Your task to perform on an android device: empty trash in the gmail app Image 0: 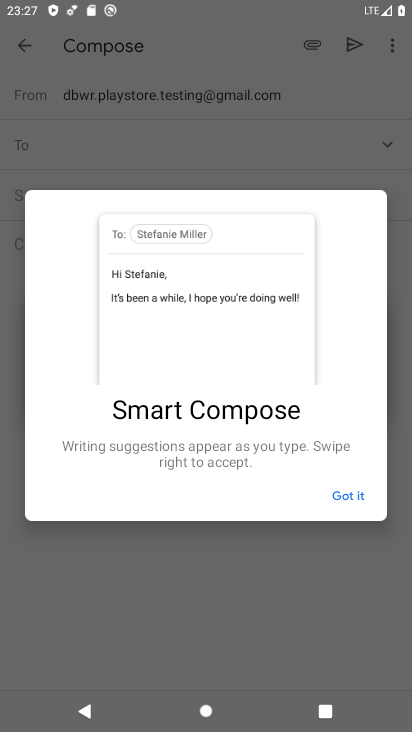
Step 0: drag from (208, 433) to (245, 199)
Your task to perform on an android device: empty trash in the gmail app Image 1: 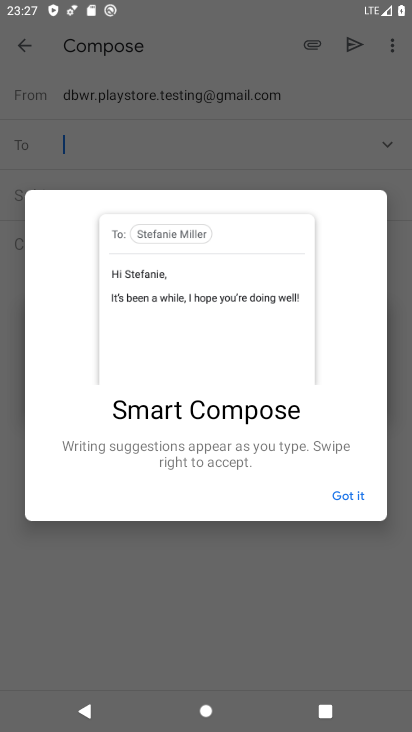
Step 1: press home button
Your task to perform on an android device: empty trash in the gmail app Image 2: 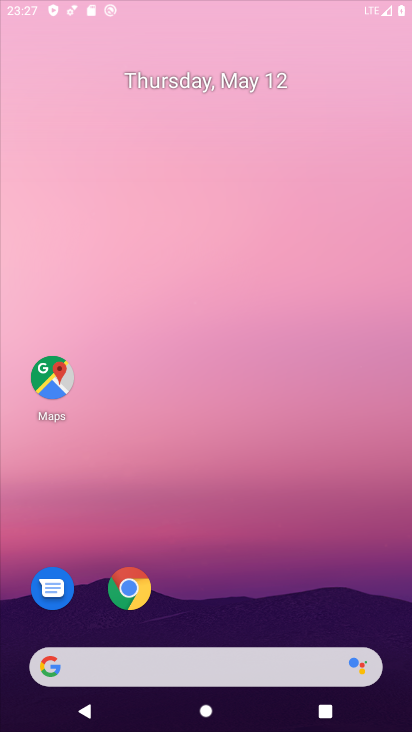
Step 2: drag from (249, 600) to (293, 136)
Your task to perform on an android device: empty trash in the gmail app Image 3: 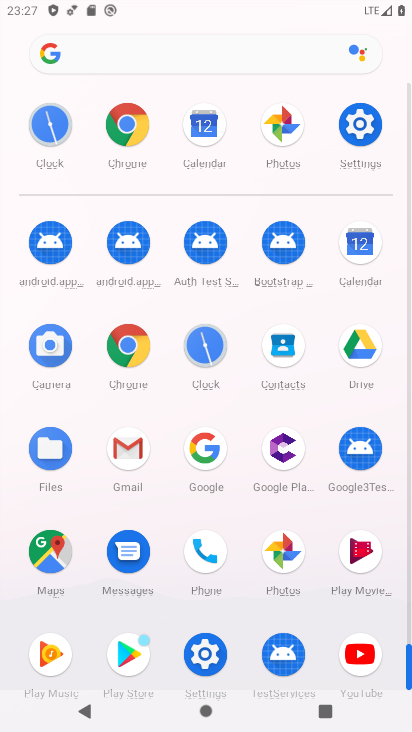
Step 3: click (364, 122)
Your task to perform on an android device: empty trash in the gmail app Image 4: 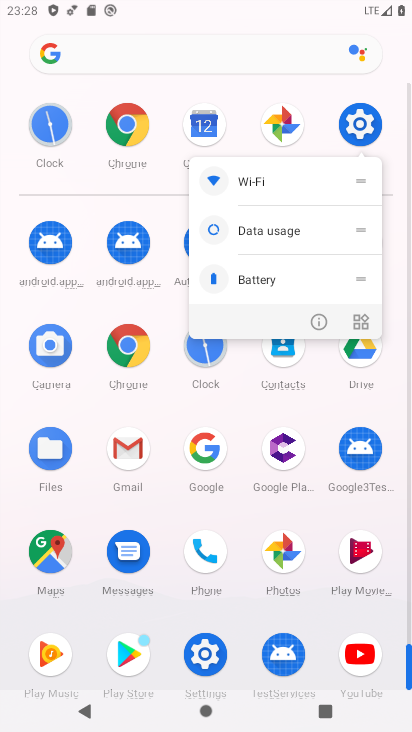
Step 4: click (108, 451)
Your task to perform on an android device: empty trash in the gmail app Image 5: 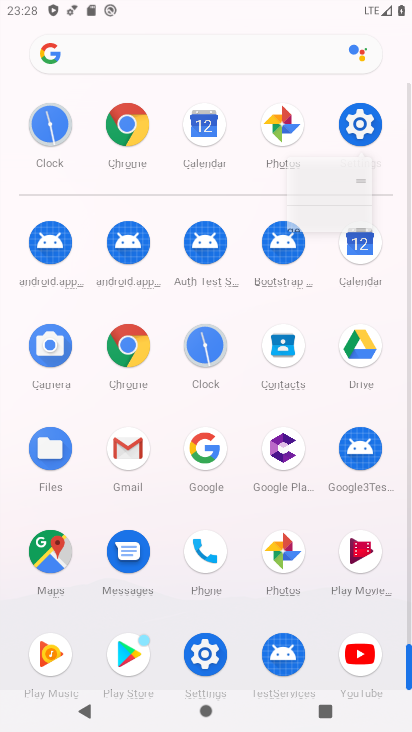
Step 5: click (108, 451)
Your task to perform on an android device: empty trash in the gmail app Image 6: 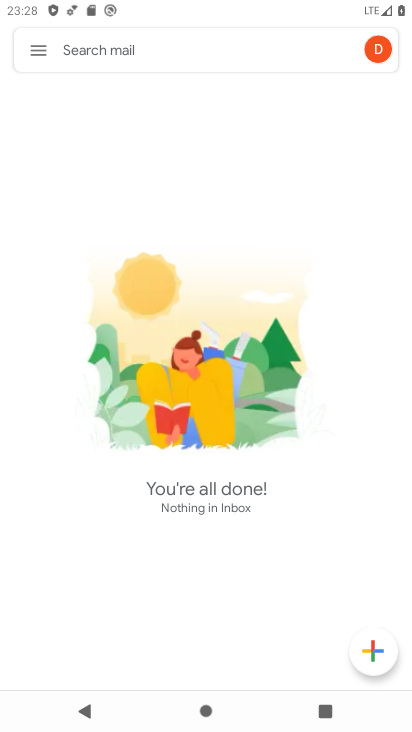
Step 6: drag from (128, 442) to (172, 230)
Your task to perform on an android device: empty trash in the gmail app Image 7: 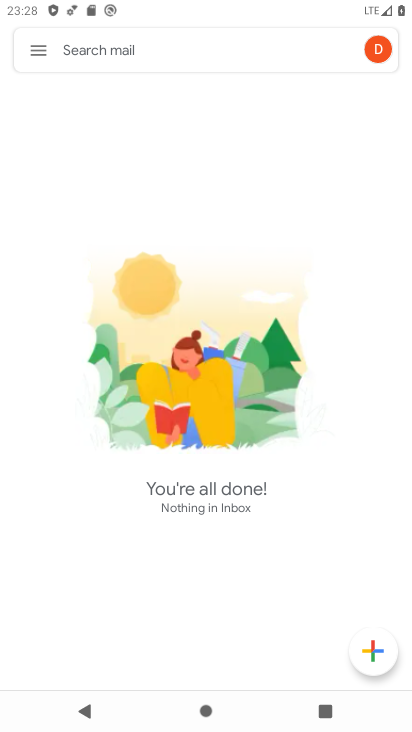
Step 7: click (25, 56)
Your task to perform on an android device: empty trash in the gmail app Image 8: 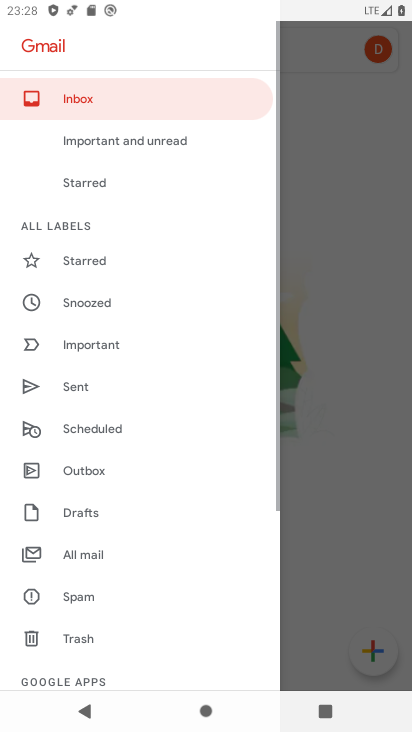
Step 8: drag from (113, 624) to (140, 164)
Your task to perform on an android device: empty trash in the gmail app Image 9: 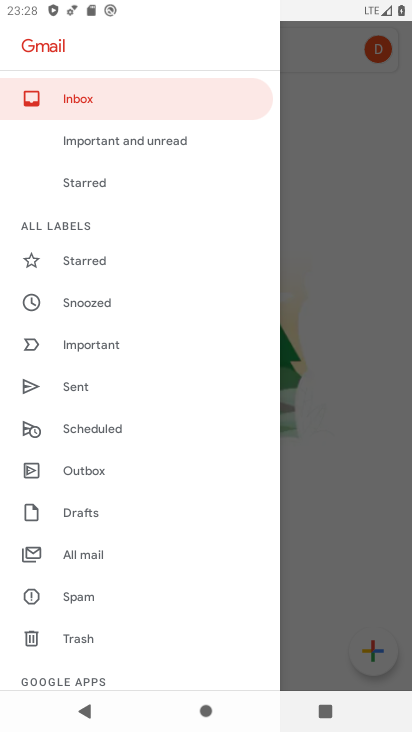
Step 9: click (110, 647)
Your task to perform on an android device: empty trash in the gmail app Image 10: 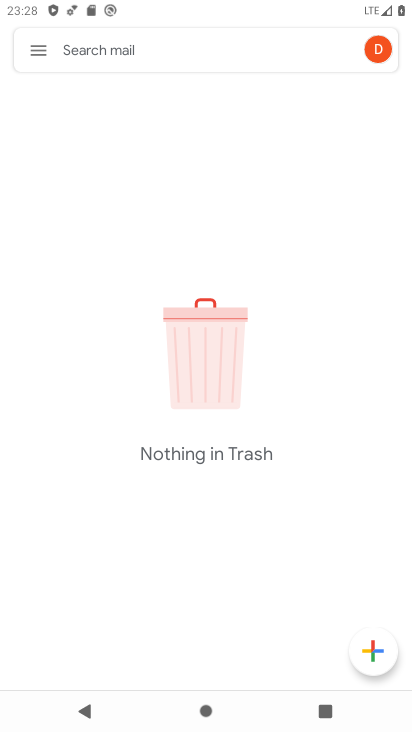
Step 10: task complete